Your task to perform on an android device: Go to network settings Image 0: 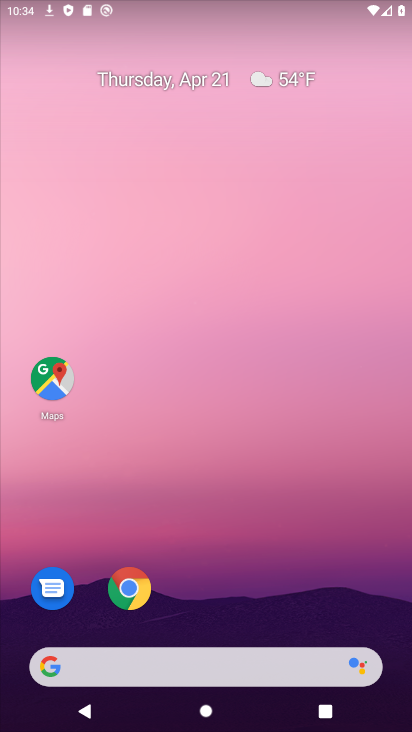
Step 0: drag from (306, 482) to (274, 37)
Your task to perform on an android device: Go to network settings Image 1: 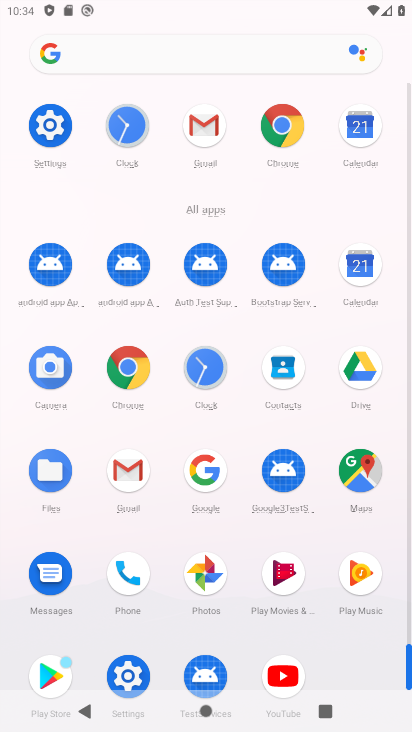
Step 1: click (37, 134)
Your task to perform on an android device: Go to network settings Image 2: 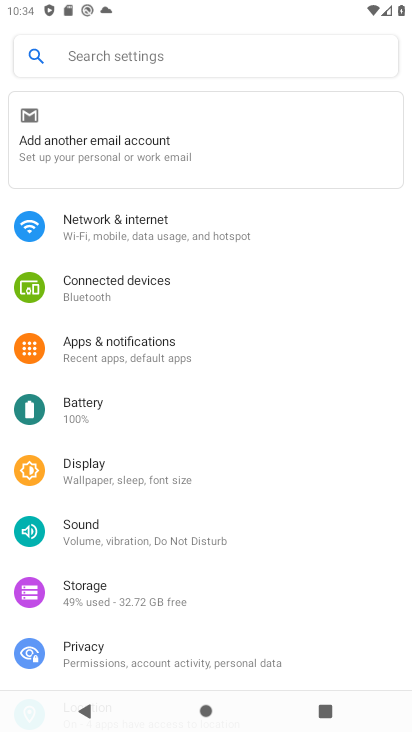
Step 2: click (127, 237)
Your task to perform on an android device: Go to network settings Image 3: 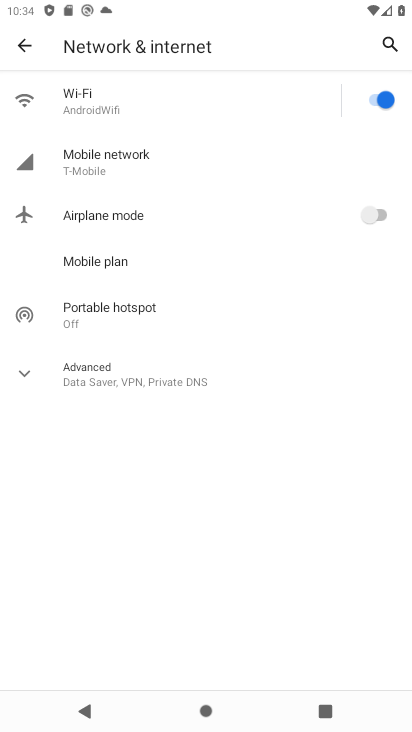
Step 3: task complete